Your task to perform on an android device: Open network settings Image 0: 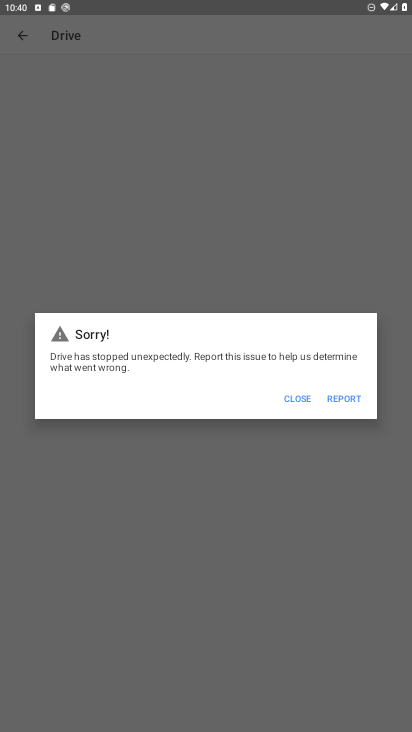
Step 0: press home button
Your task to perform on an android device: Open network settings Image 1: 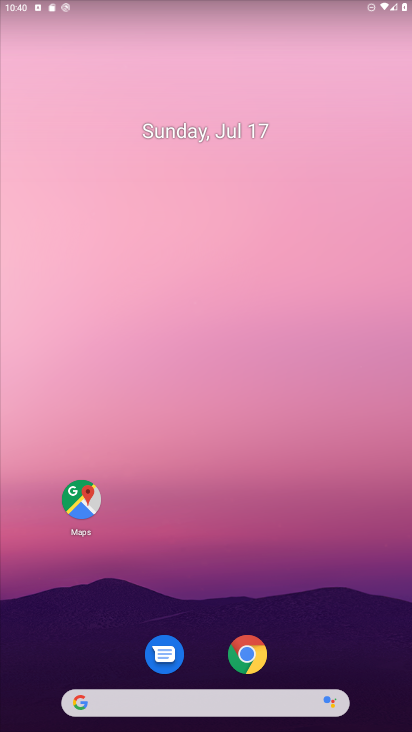
Step 1: drag from (194, 621) to (191, 101)
Your task to perform on an android device: Open network settings Image 2: 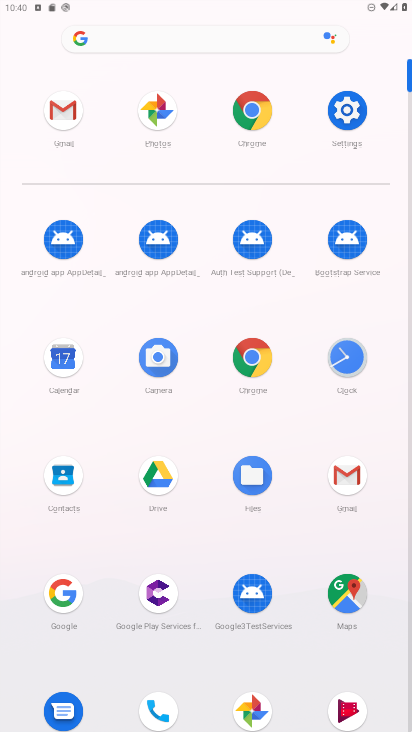
Step 2: click (333, 127)
Your task to perform on an android device: Open network settings Image 3: 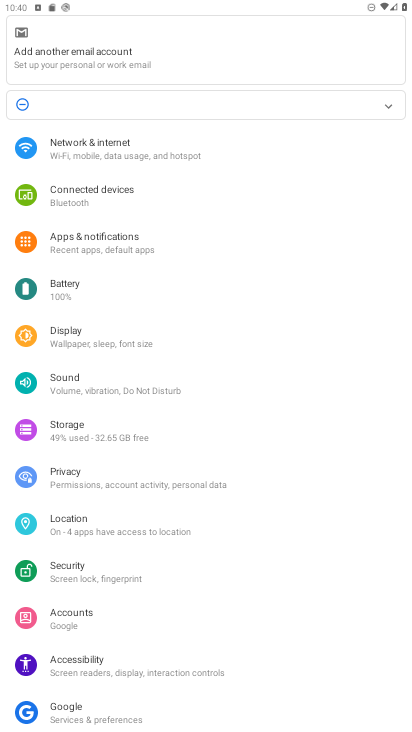
Step 3: click (132, 146)
Your task to perform on an android device: Open network settings Image 4: 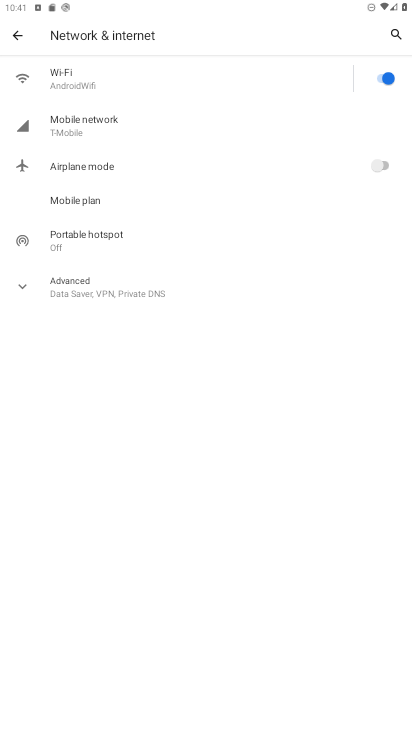
Step 4: task complete